Your task to perform on an android device: Do I have any events today? Image 0: 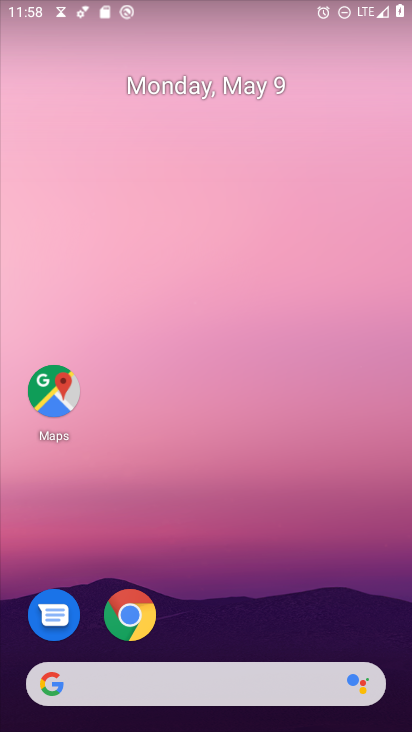
Step 0: drag from (207, 726) to (192, 178)
Your task to perform on an android device: Do I have any events today? Image 1: 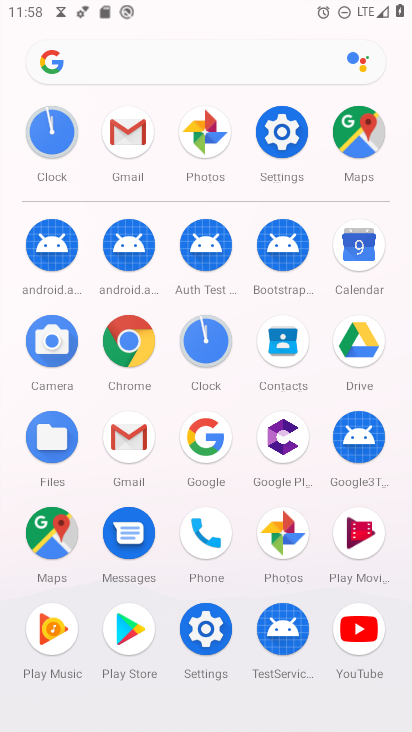
Step 1: click (363, 256)
Your task to perform on an android device: Do I have any events today? Image 2: 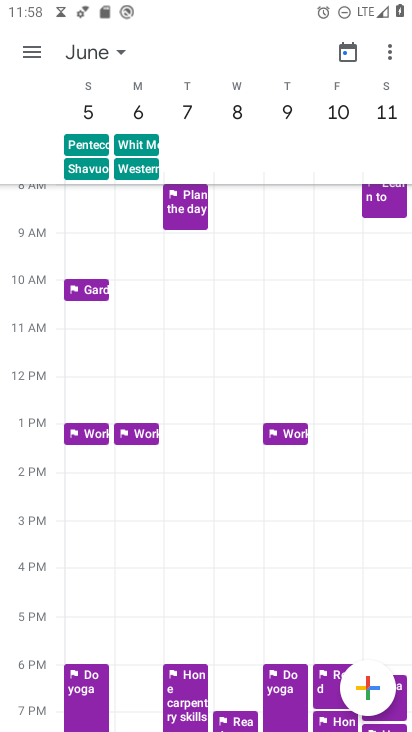
Step 2: click (125, 54)
Your task to perform on an android device: Do I have any events today? Image 3: 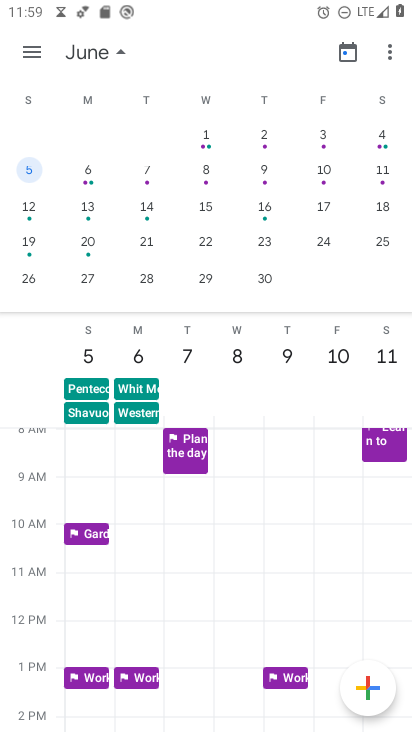
Step 3: drag from (26, 229) to (411, 225)
Your task to perform on an android device: Do I have any events today? Image 4: 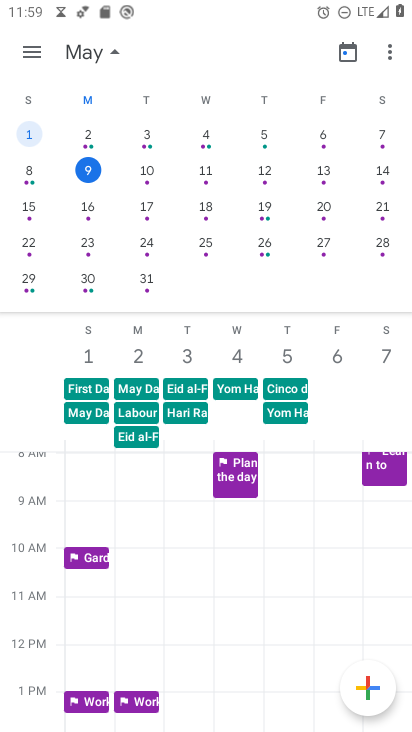
Step 4: click (86, 169)
Your task to perform on an android device: Do I have any events today? Image 5: 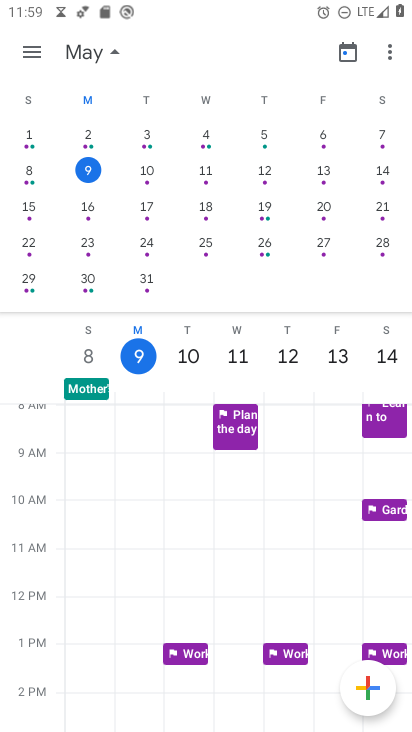
Step 5: task complete